Your task to perform on an android device: Open battery settings Image 0: 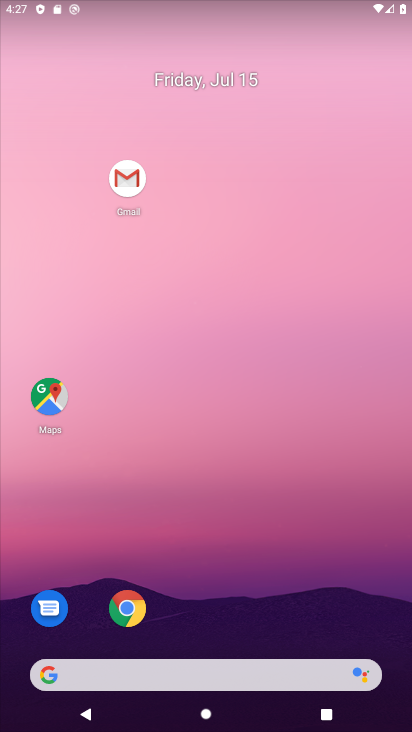
Step 0: drag from (224, 610) to (197, 196)
Your task to perform on an android device: Open battery settings Image 1: 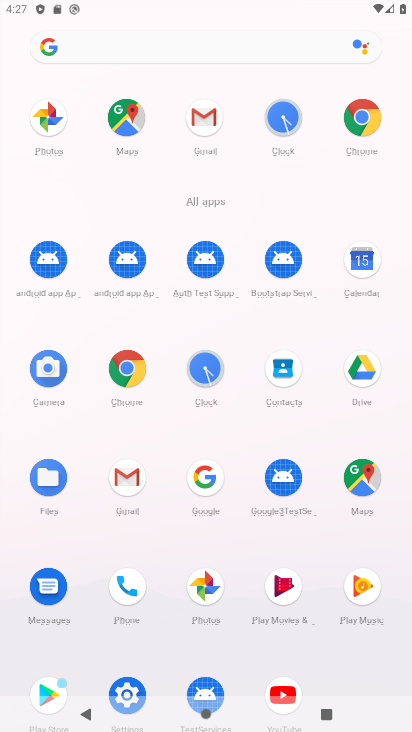
Step 1: click (130, 681)
Your task to perform on an android device: Open battery settings Image 2: 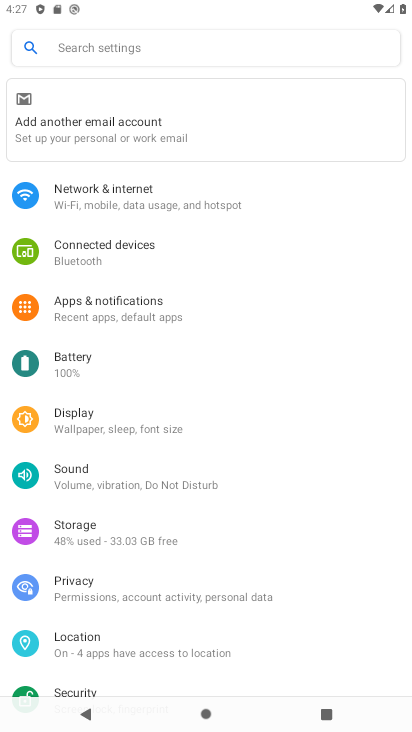
Step 2: click (104, 363)
Your task to perform on an android device: Open battery settings Image 3: 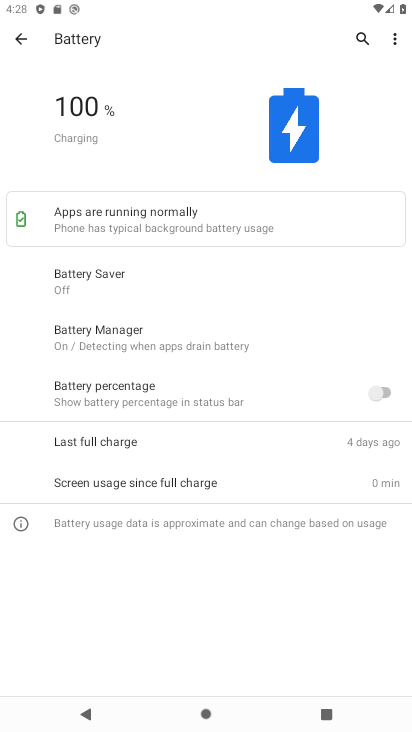
Step 3: task complete